Your task to perform on an android device: toggle sleep mode Image 0: 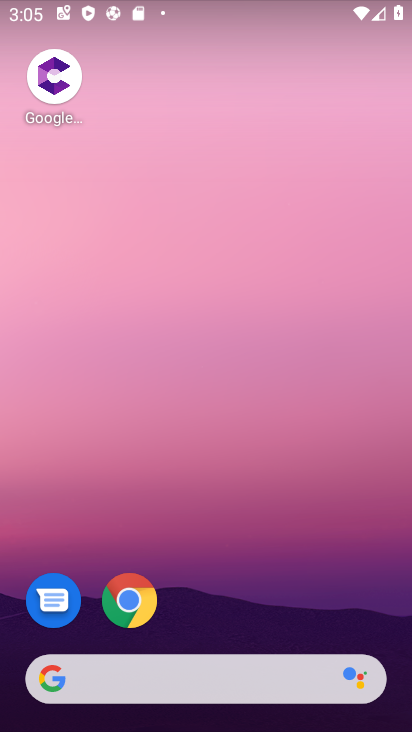
Step 0: drag from (148, 675) to (295, 218)
Your task to perform on an android device: toggle sleep mode Image 1: 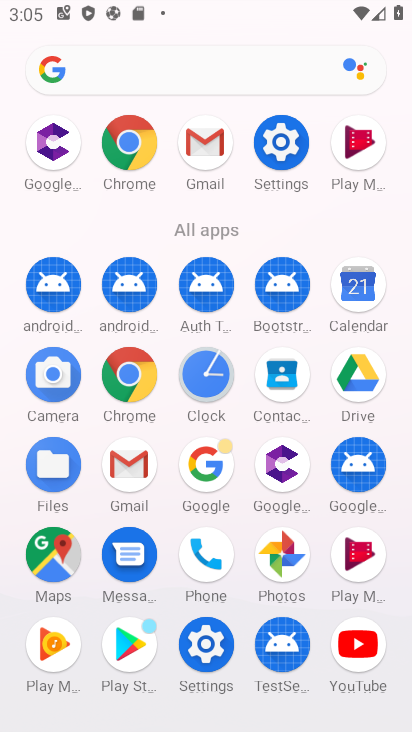
Step 1: click (292, 133)
Your task to perform on an android device: toggle sleep mode Image 2: 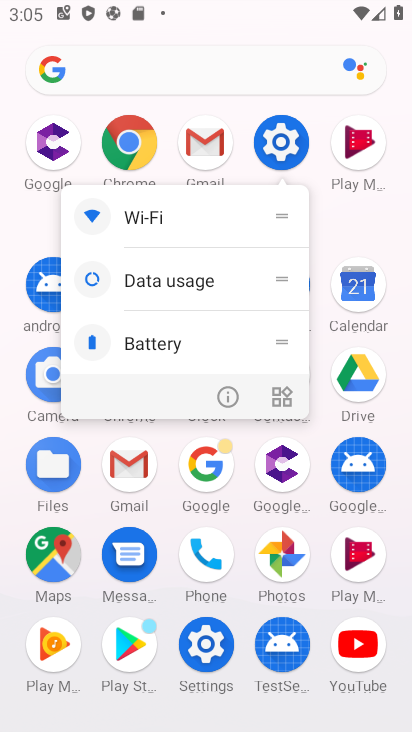
Step 2: click (282, 152)
Your task to perform on an android device: toggle sleep mode Image 3: 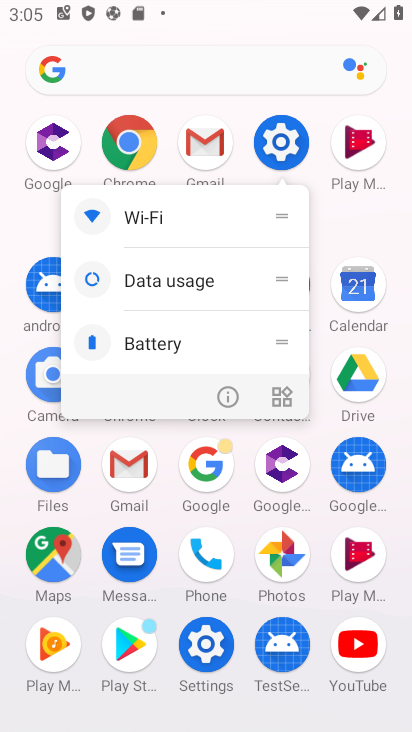
Step 3: click (282, 151)
Your task to perform on an android device: toggle sleep mode Image 4: 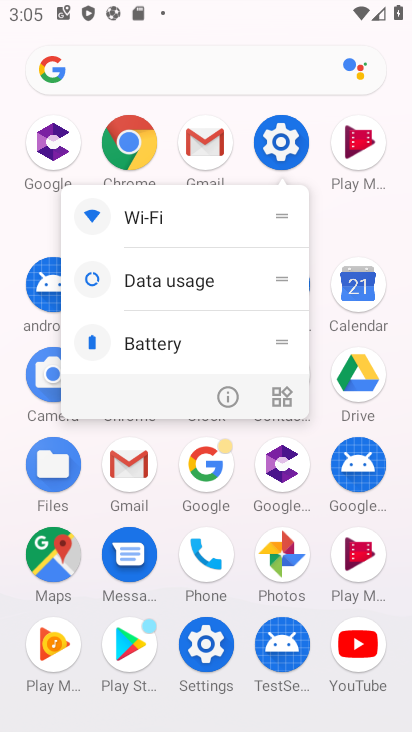
Step 4: click (284, 140)
Your task to perform on an android device: toggle sleep mode Image 5: 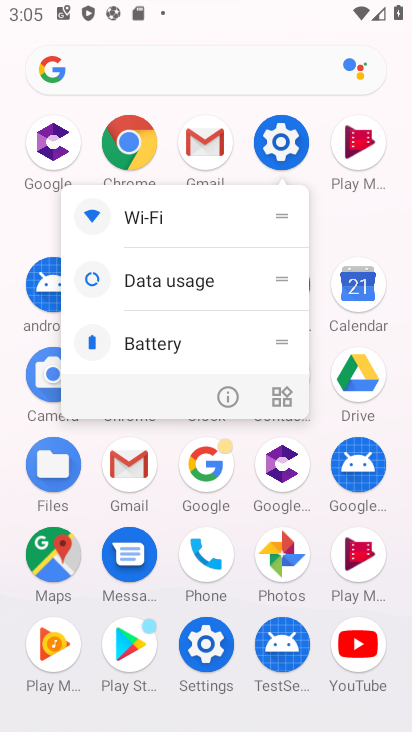
Step 5: click (280, 143)
Your task to perform on an android device: toggle sleep mode Image 6: 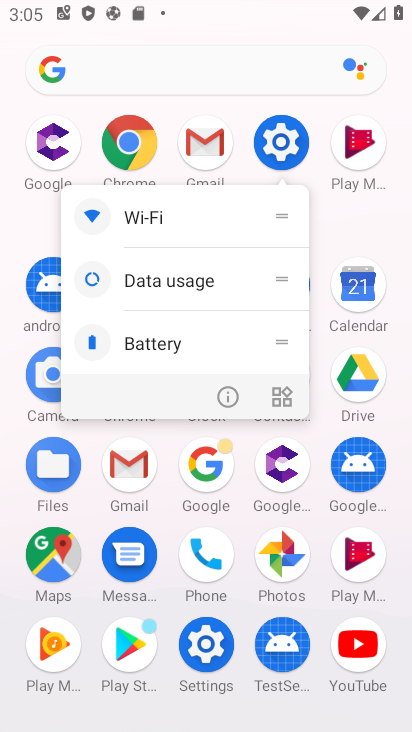
Step 6: click (282, 148)
Your task to perform on an android device: toggle sleep mode Image 7: 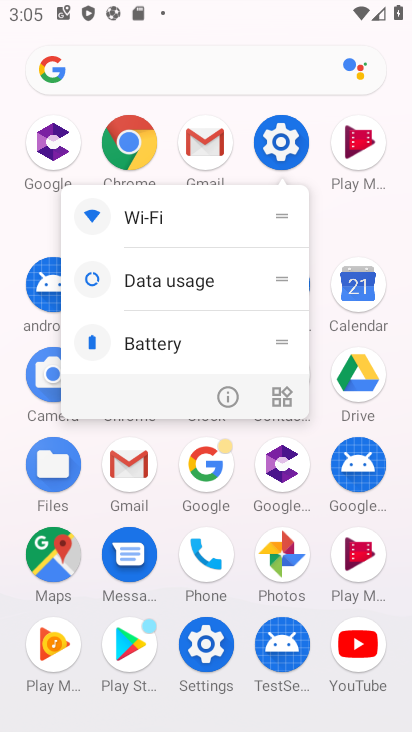
Step 7: click (277, 147)
Your task to perform on an android device: toggle sleep mode Image 8: 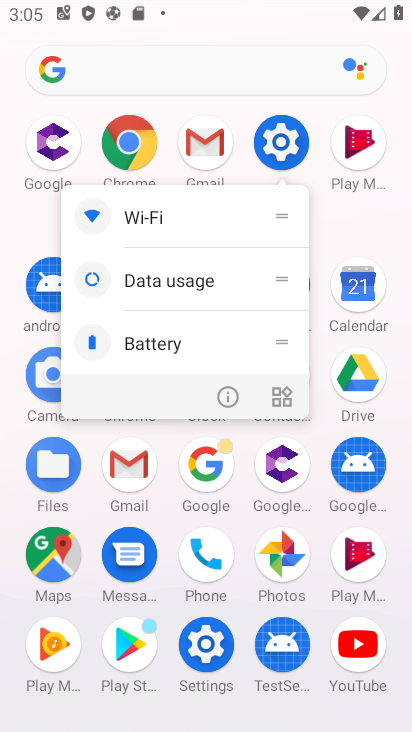
Step 8: click (275, 138)
Your task to perform on an android device: toggle sleep mode Image 9: 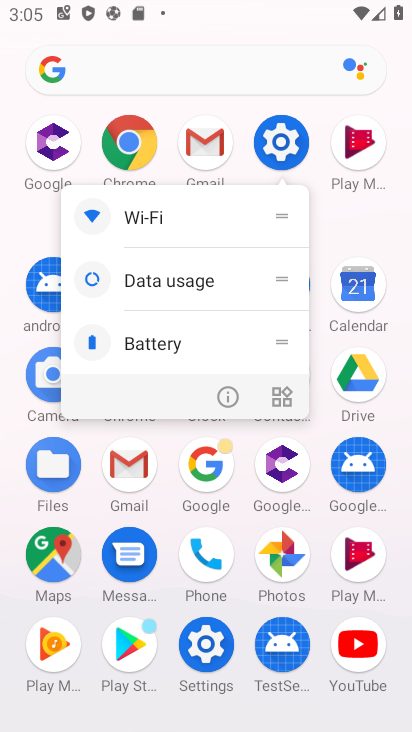
Step 9: click (284, 144)
Your task to perform on an android device: toggle sleep mode Image 10: 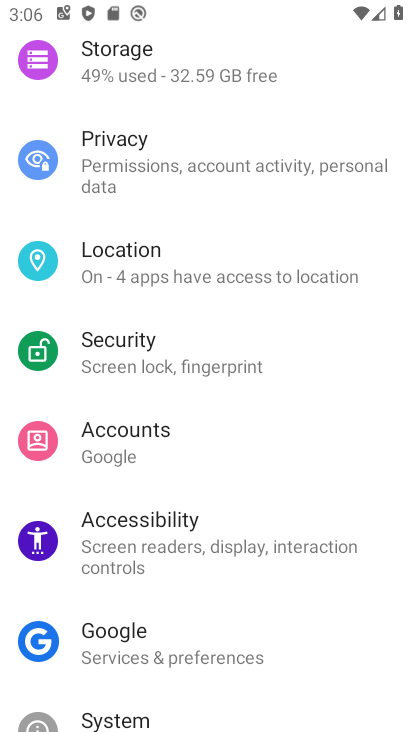
Step 10: drag from (296, 192) to (229, 565)
Your task to perform on an android device: toggle sleep mode Image 11: 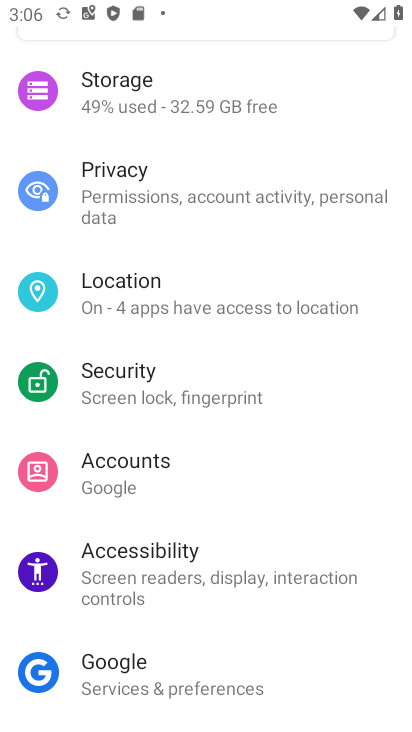
Step 11: drag from (286, 72) to (178, 628)
Your task to perform on an android device: toggle sleep mode Image 12: 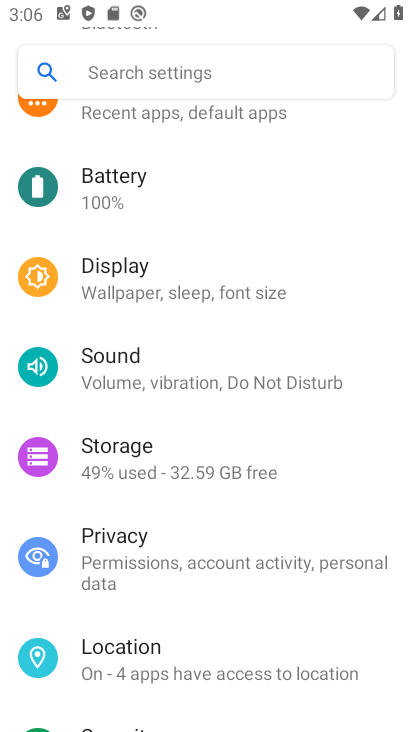
Step 12: click (181, 282)
Your task to perform on an android device: toggle sleep mode Image 13: 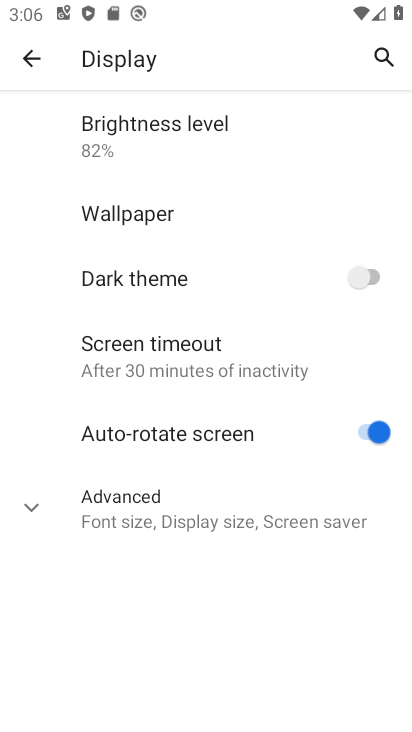
Step 13: task complete